Your task to perform on an android device: Open calendar and show me the first week of next month Image 0: 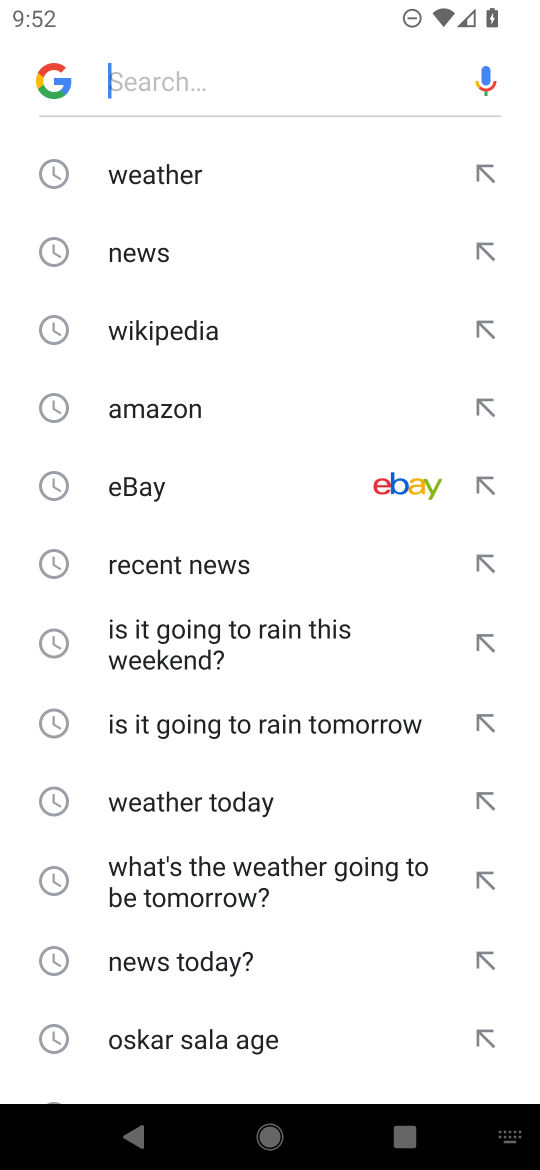
Step 0: press home button
Your task to perform on an android device: Open calendar and show me the first week of next month Image 1: 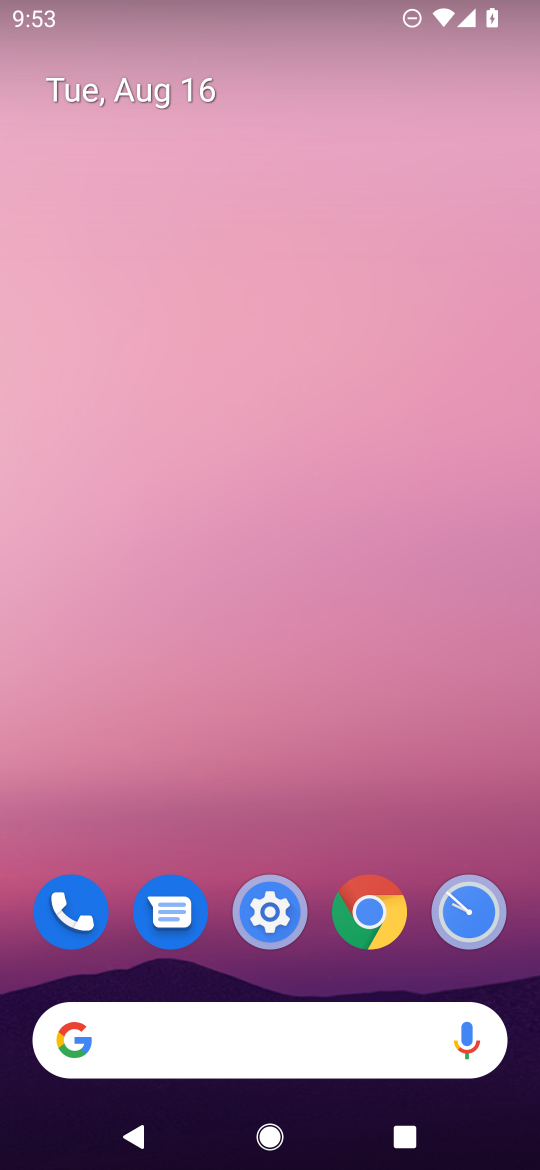
Step 1: click (91, 80)
Your task to perform on an android device: Open calendar and show me the first week of next month Image 2: 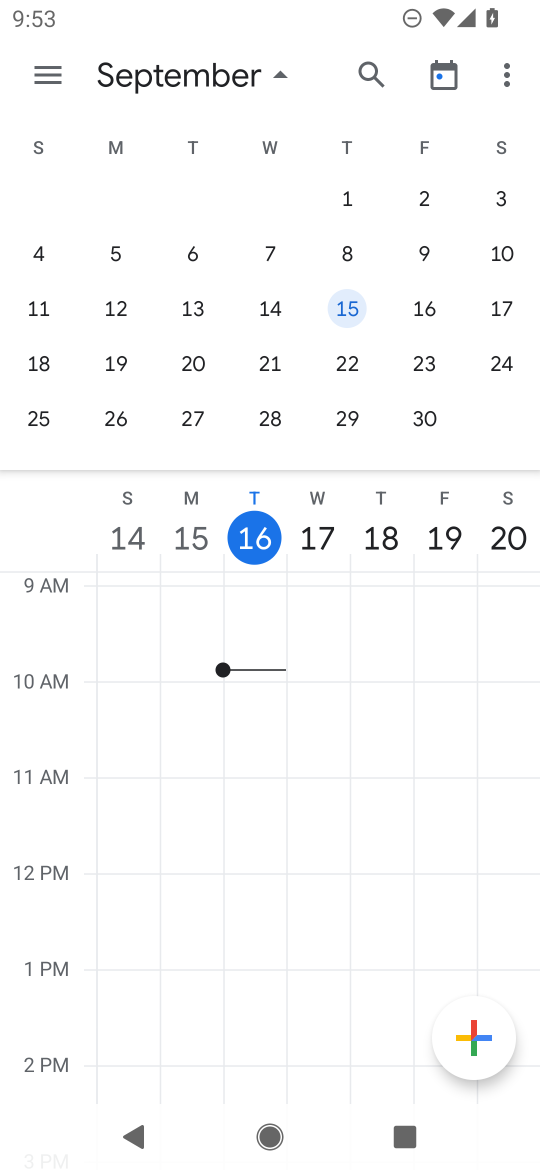
Step 2: click (362, 205)
Your task to perform on an android device: Open calendar and show me the first week of next month Image 3: 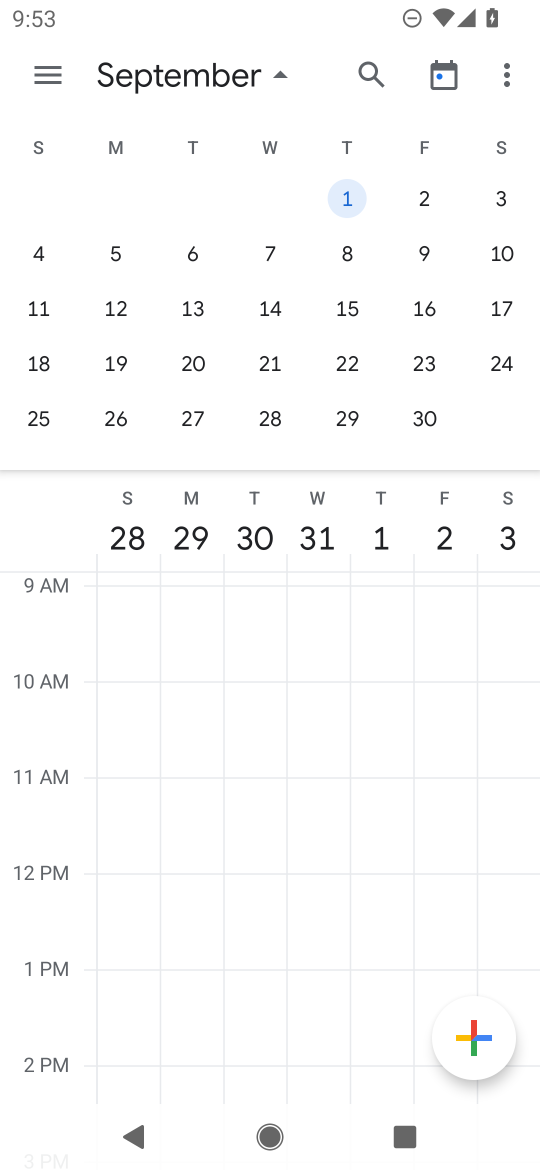
Step 3: task complete